Your task to perform on an android device: Open notification settings Image 0: 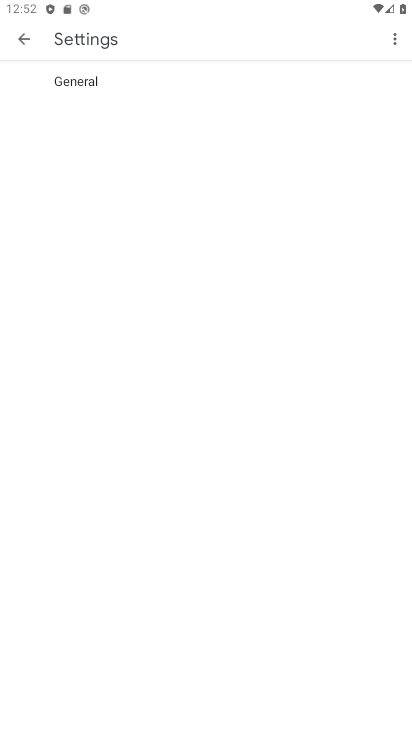
Step 0: click (18, 34)
Your task to perform on an android device: Open notification settings Image 1: 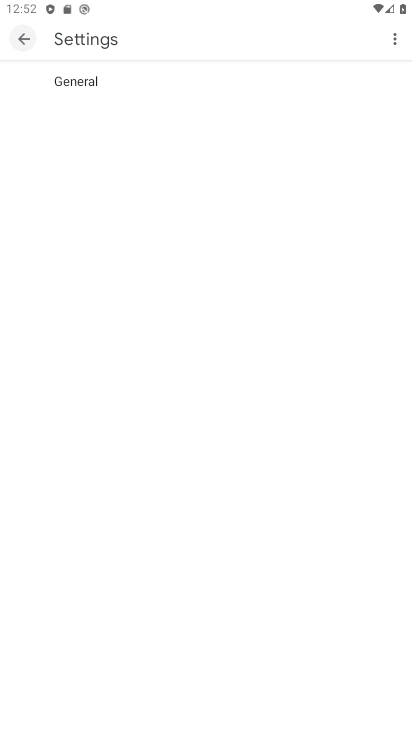
Step 1: click (18, 33)
Your task to perform on an android device: Open notification settings Image 2: 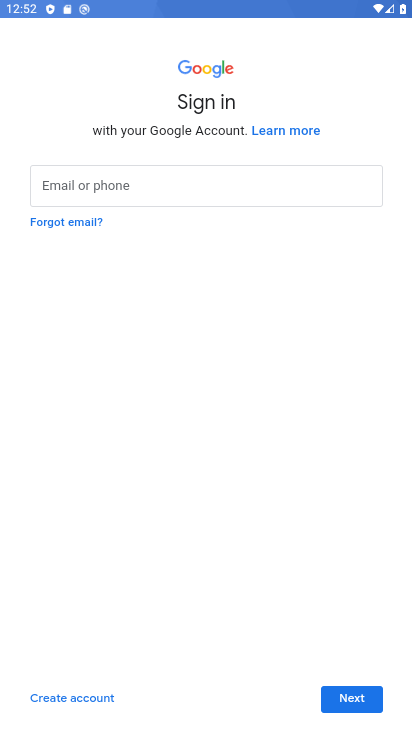
Step 2: press back button
Your task to perform on an android device: Open notification settings Image 3: 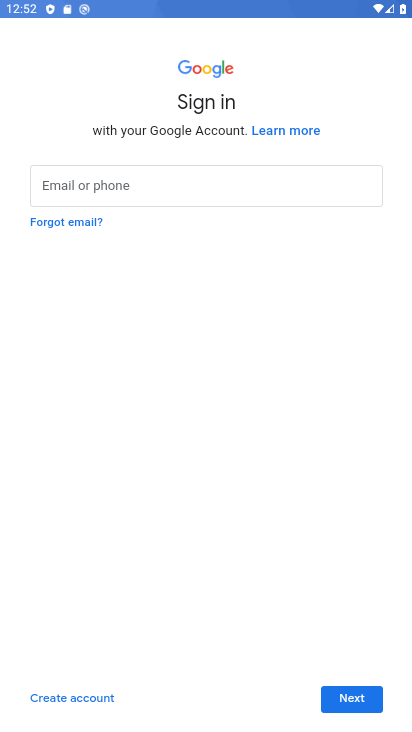
Step 3: press back button
Your task to perform on an android device: Open notification settings Image 4: 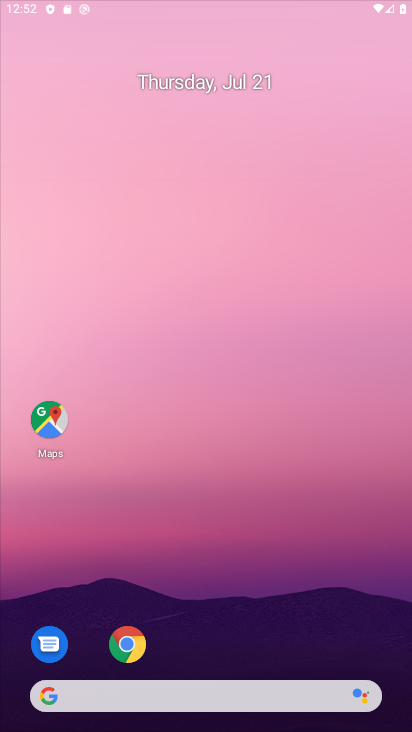
Step 4: press back button
Your task to perform on an android device: Open notification settings Image 5: 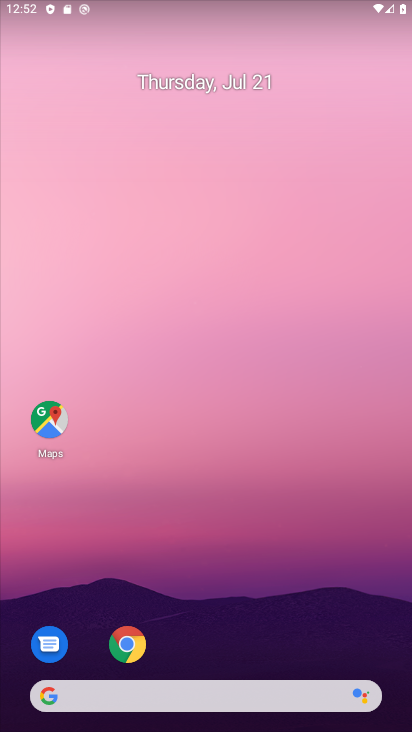
Step 5: drag from (217, 611) to (238, 254)
Your task to perform on an android device: Open notification settings Image 6: 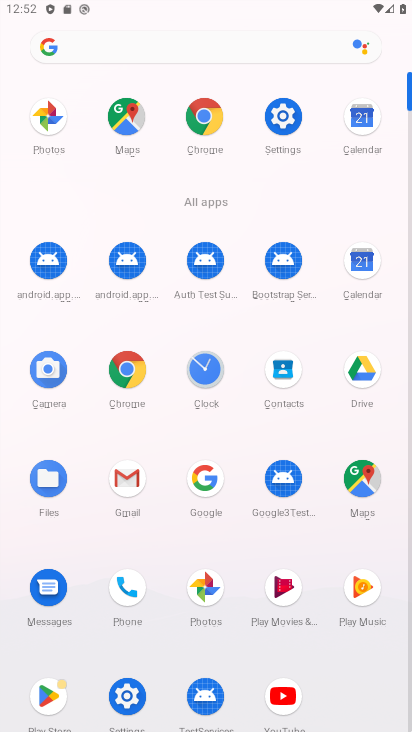
Step 6: click (283, 118)
Your task to perform on an android device: Open notification settings Image 7: 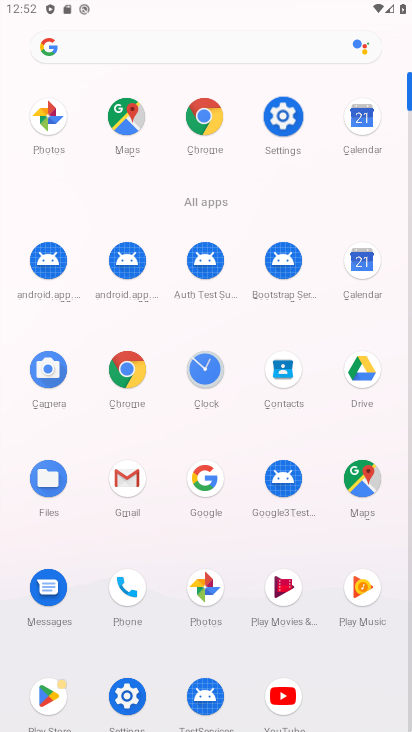
Step 7: click (283, 118)
Your task to perform on an android device: Open notification settings Image 8: 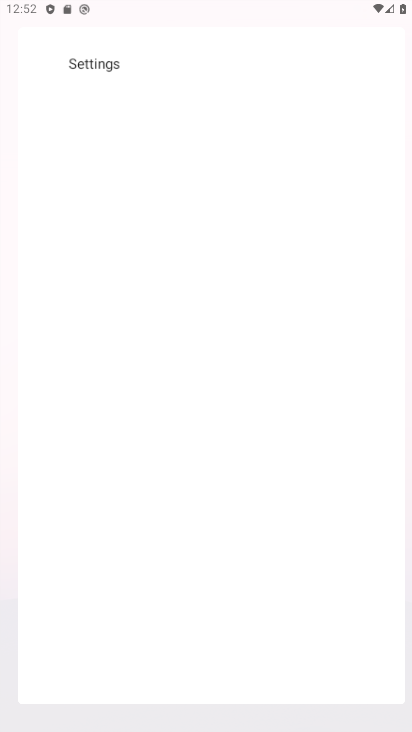
Step 8: click (283, 116)
Your task to perform on an android device: Open notification settings Image 9: 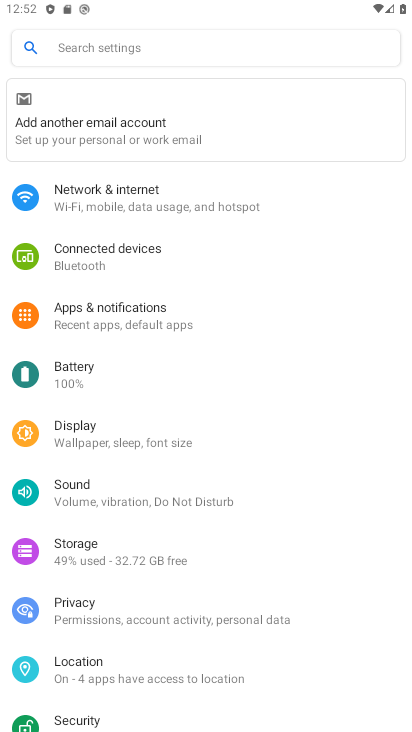
Step 9: click (123, 305)
Your task to perform on an android device: Open notification settings Image 10: 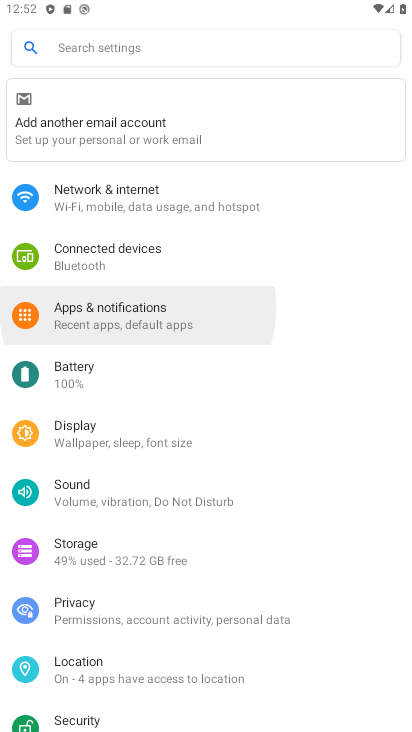
Step 10: click (122, 306)
Your task to perform on an android device: Open notification settings Image 11: 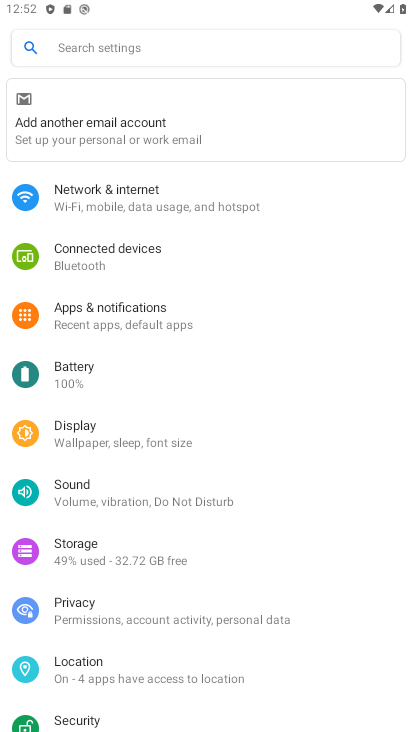
Step 11: click (128, 310)
Your task to perform on an android device: Open notification settings Image 12: 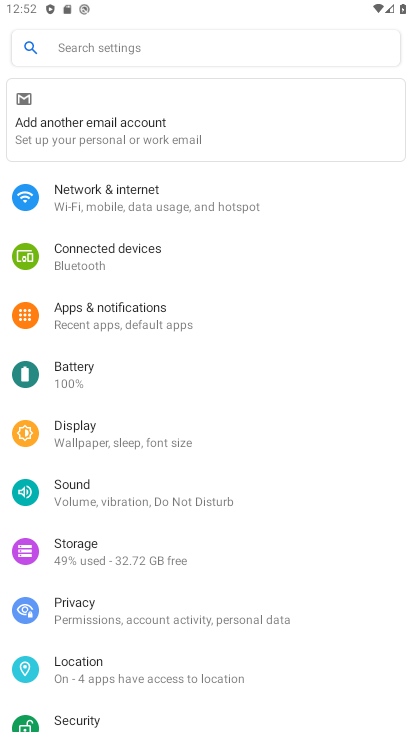
Step 12: click (132, 313)
Your task to perform on an android device: Open notification settings Image 13: 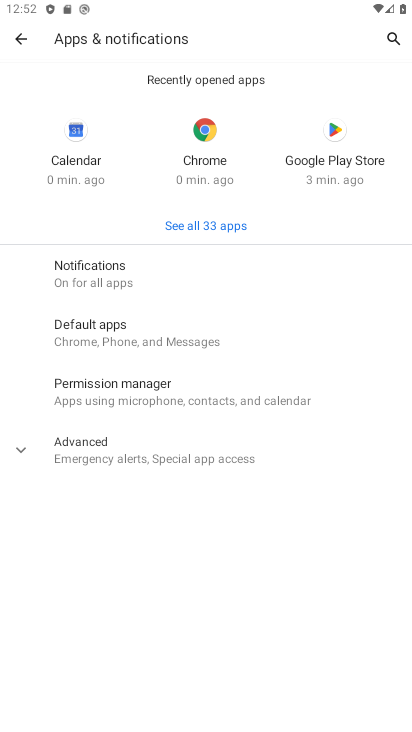
Step 13: click (86, 262)
Your task to perform on an android device: Open notification settings Image 14: 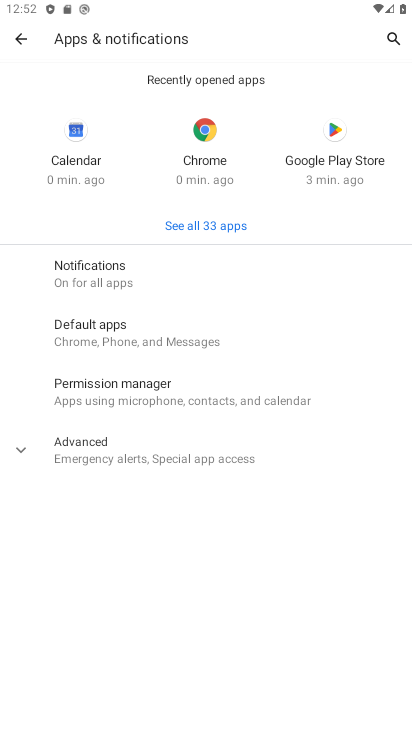
Step 14: click (87, 263)
Your task to perform on an android device: Open notification settings Image 15: 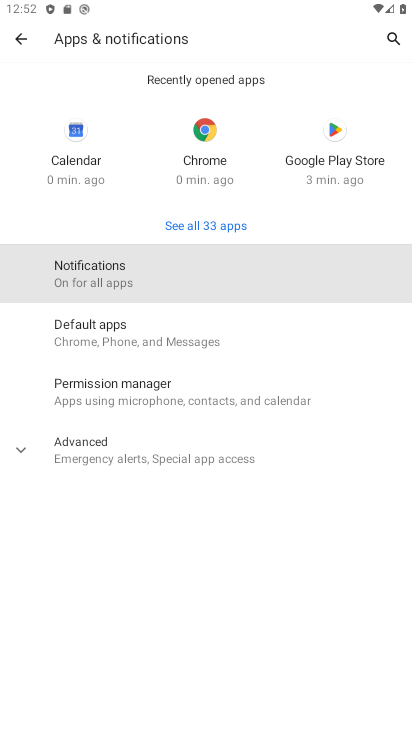
Step 15: click (87, 263)
Your task to perform on an android device: Open notification settings Image 16: 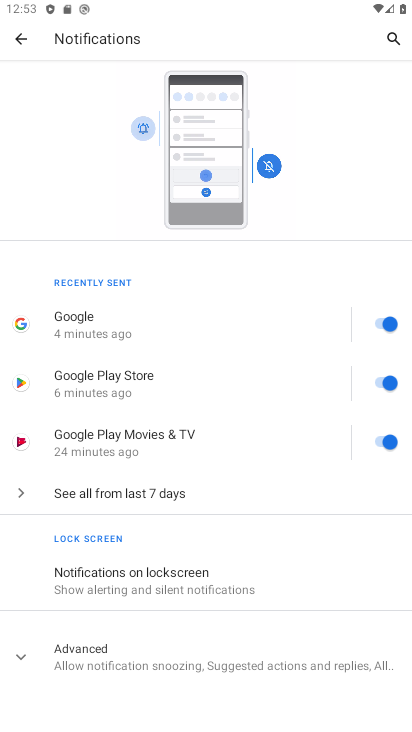
Step 16: click (88, 271)
Your task to perform on an android device: Open notification settings Image 17: 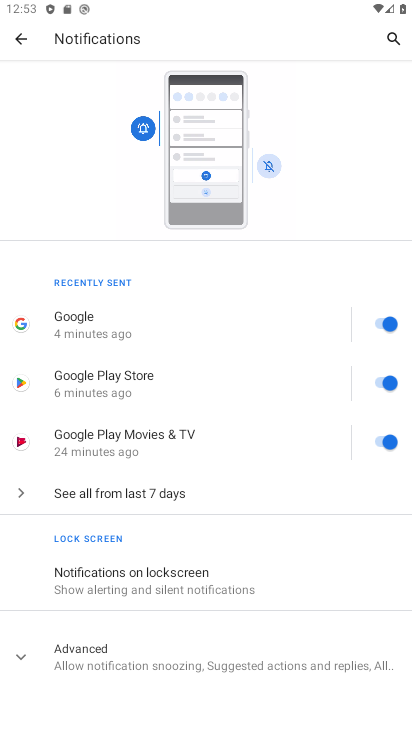
Step 17: click (88, 271)
Your task to perform on an android device: Open notification settings Image 18: 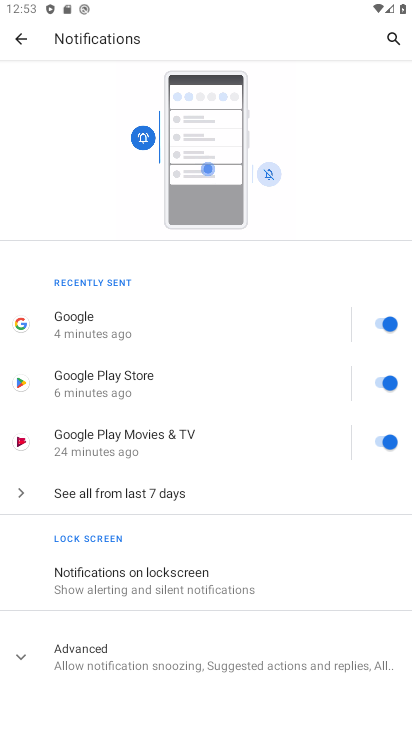
Step 18: click (130, 324)
Your task to perform on an android device: Open notification settings Image 19: 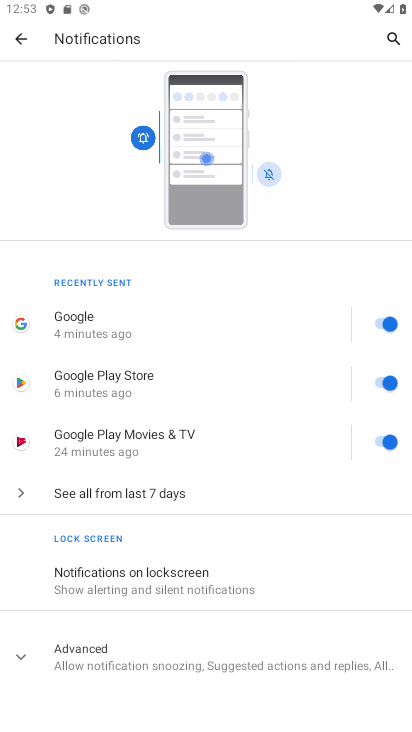
Step 19: drag from (119, 528) to (119, 334)
Your task to perform on an android device: Open notification settings Image 20: 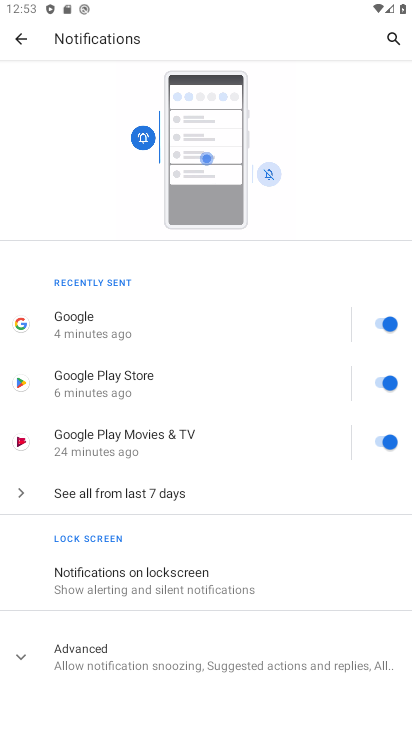
Step 20: drag from (135, 452) to (128, 310)
Your task to perform on an android device: Open notification settings Image 21: 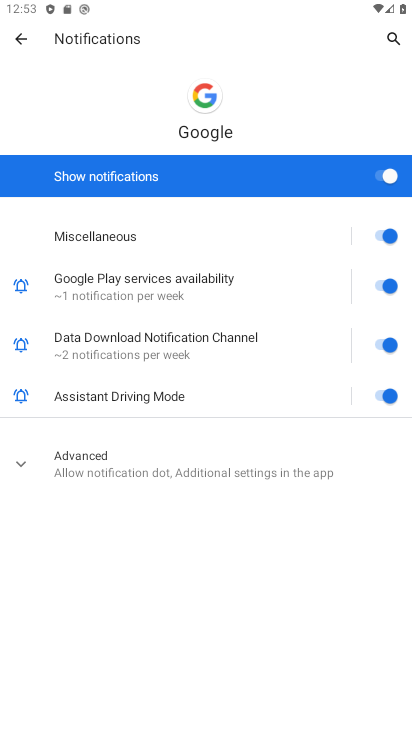
Step 21: click (19, 49)
Your task to perform on an android device: Open notification settings Image 22: 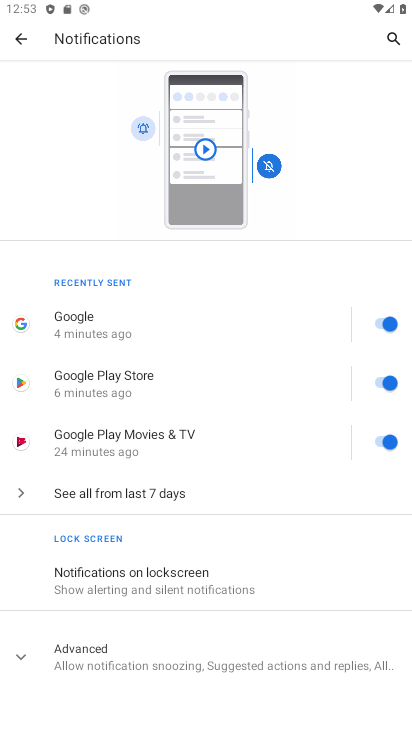
Step 22: drag from (164, 560) to (169, 413)
Your task to perform on an android device: Open notification settings Image 23: 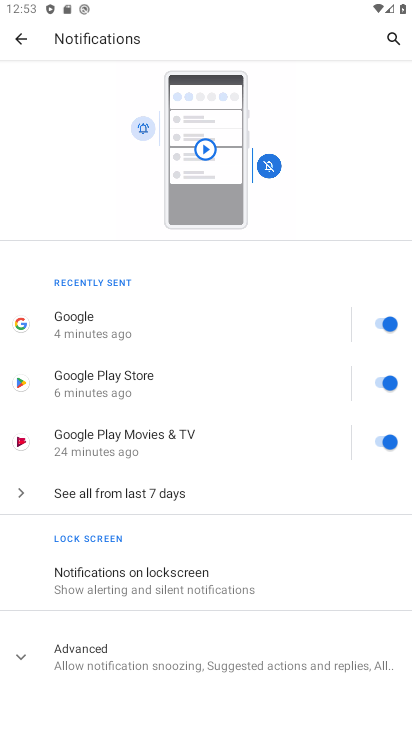
Step 23: click (181, 501)
Your task to perform on an android device: Open notification settings Image 24: 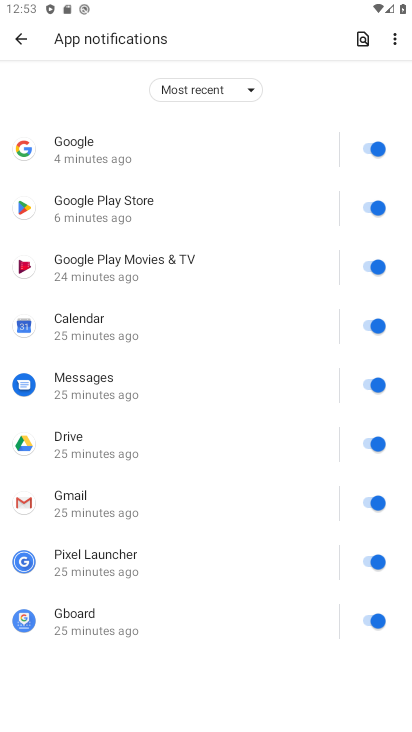
Step 24: task complete